Your task to perform on an android device: turn notification dots off Image 0: 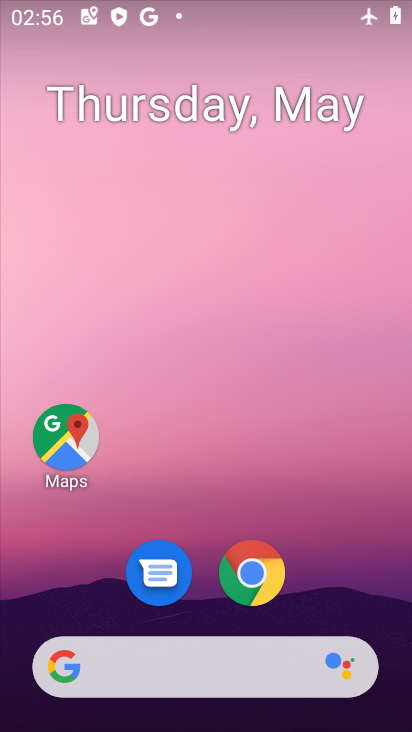
Step 0: drag from (293, 593) to (299, 267)
Your task to perform on an android device: turn notification dots off Image 1: 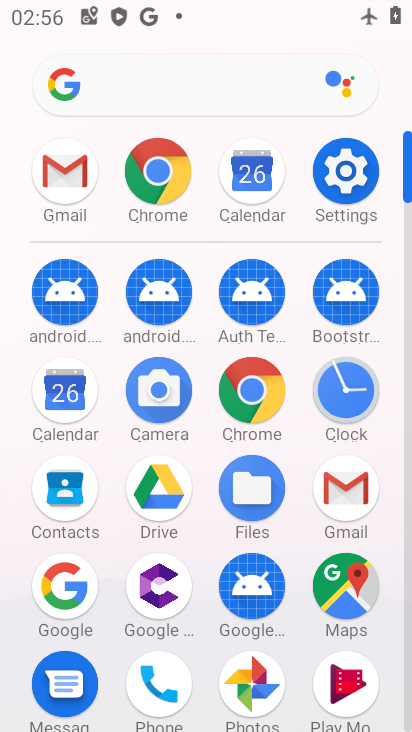
Step 1: click (331, 165)
Your task to perform on an android device: turn notification dots off Image 2: 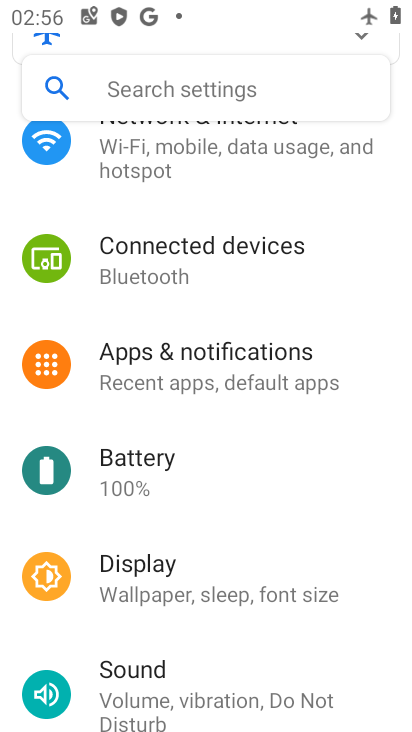
Step 2: click (196, 89)
Your task to perform on an android device: turn notification dots off Image 3: 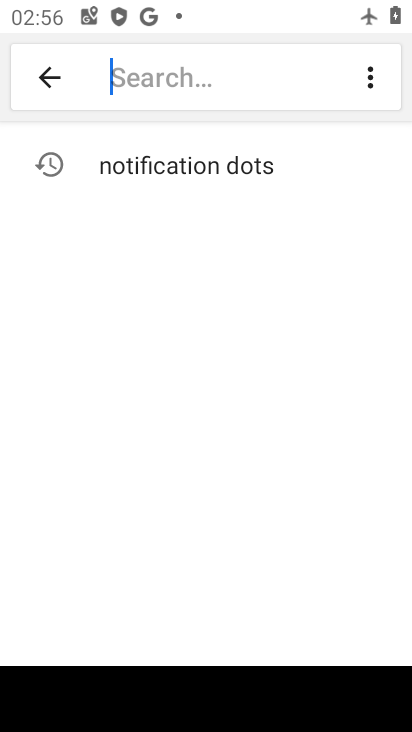
Step 3: click (205, 151)
Your task to perform on an android device: turn notification dots off Image 4: 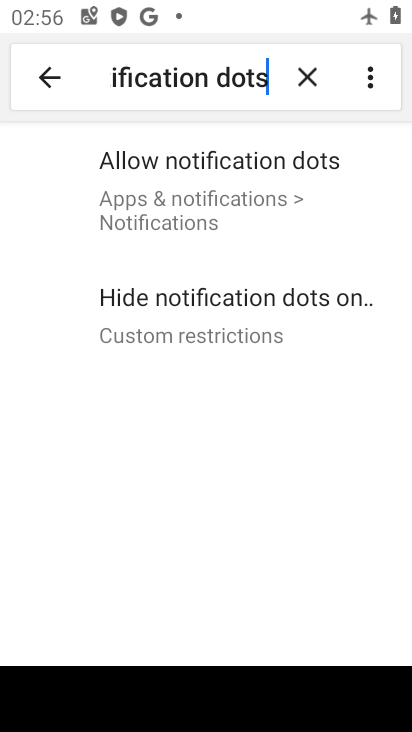
Step 4: click (255, 188)
Your task to perform on an android device: turn notification dots off Image 5: 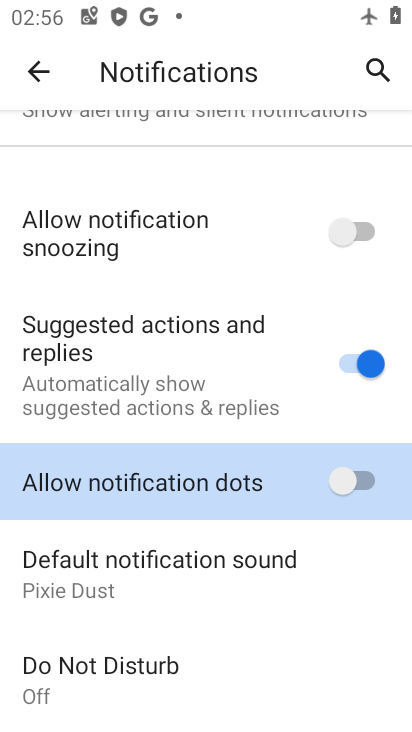
Step 5: task complete